Your task to perform on an android device: What's the weather? Image 0: 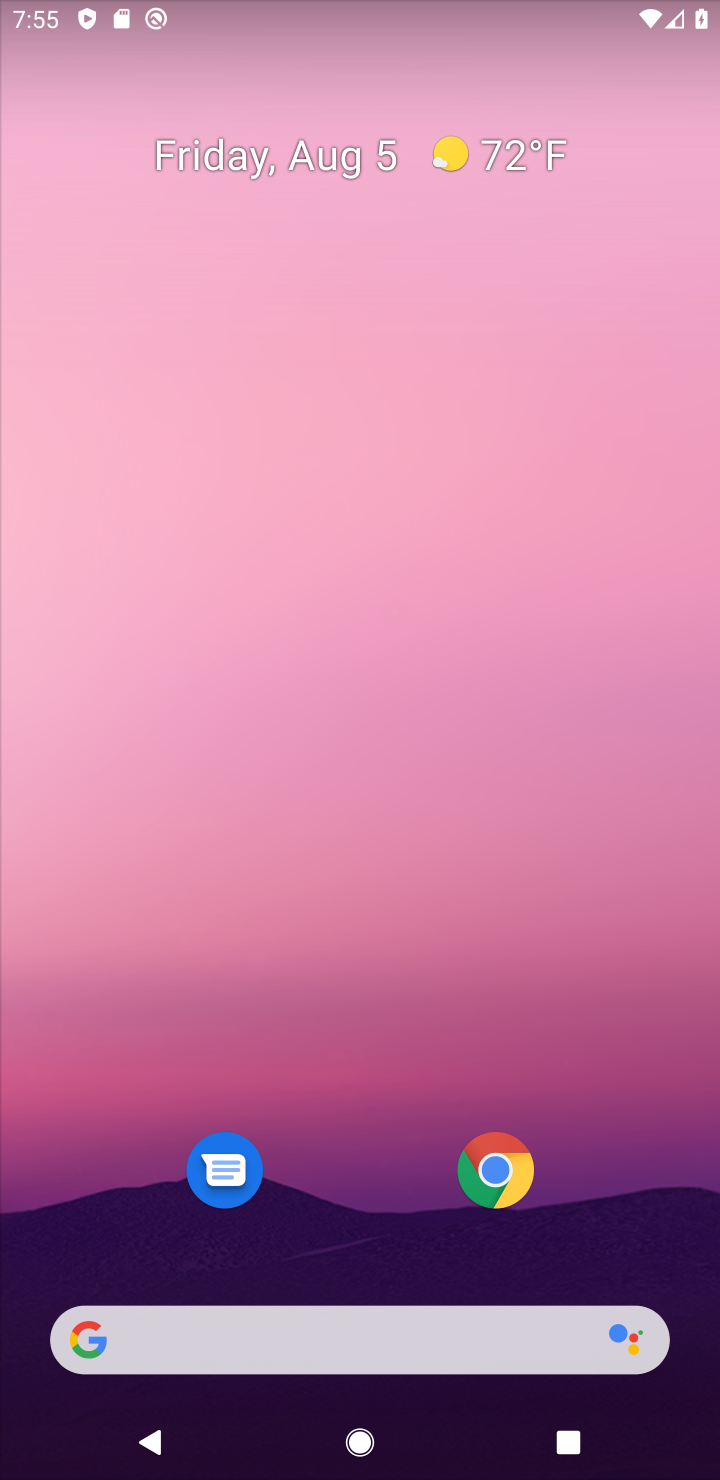
Step 0: click (480, 160)
Your task to perform on an android device: What's the weather? Image 1: 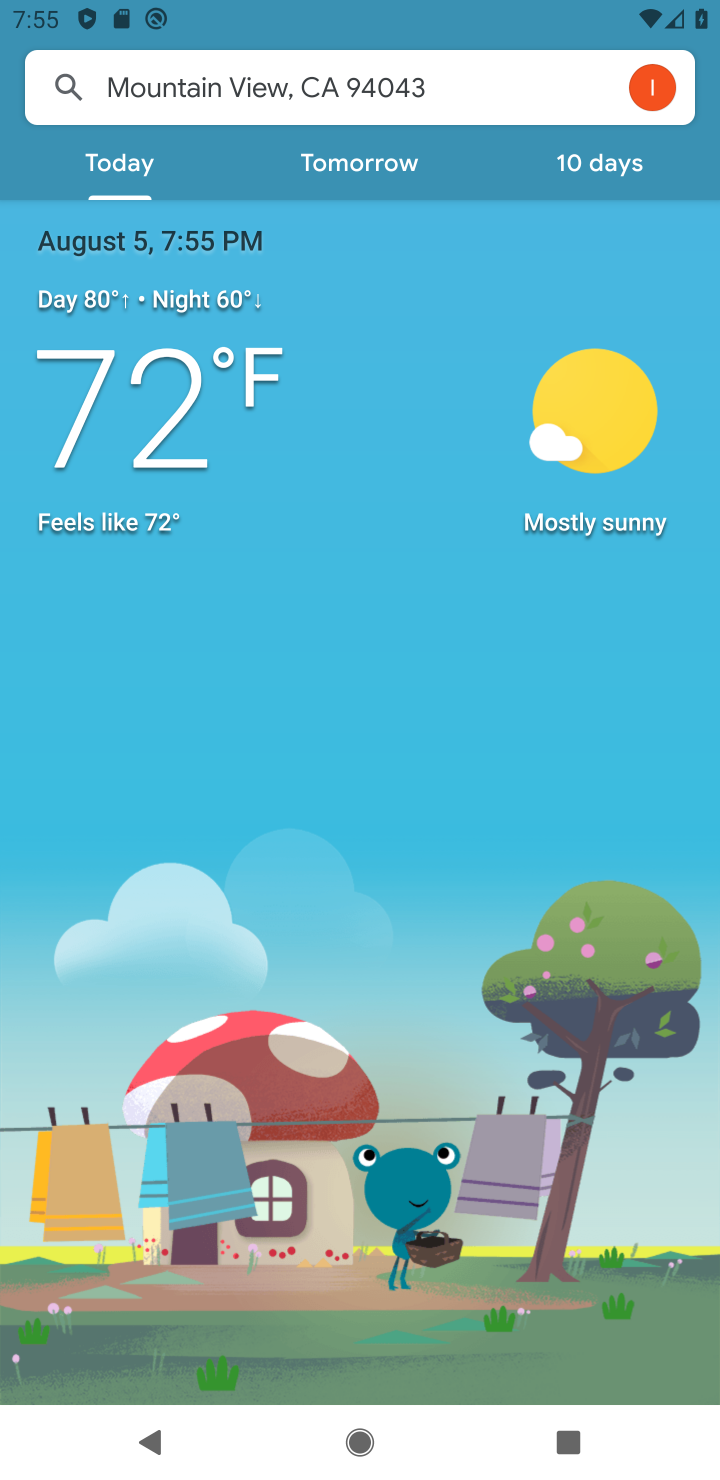
Step 1: task complete